Your task to perform on an android device: Look up the best rated kitchen knives on Amazon. Image 0: 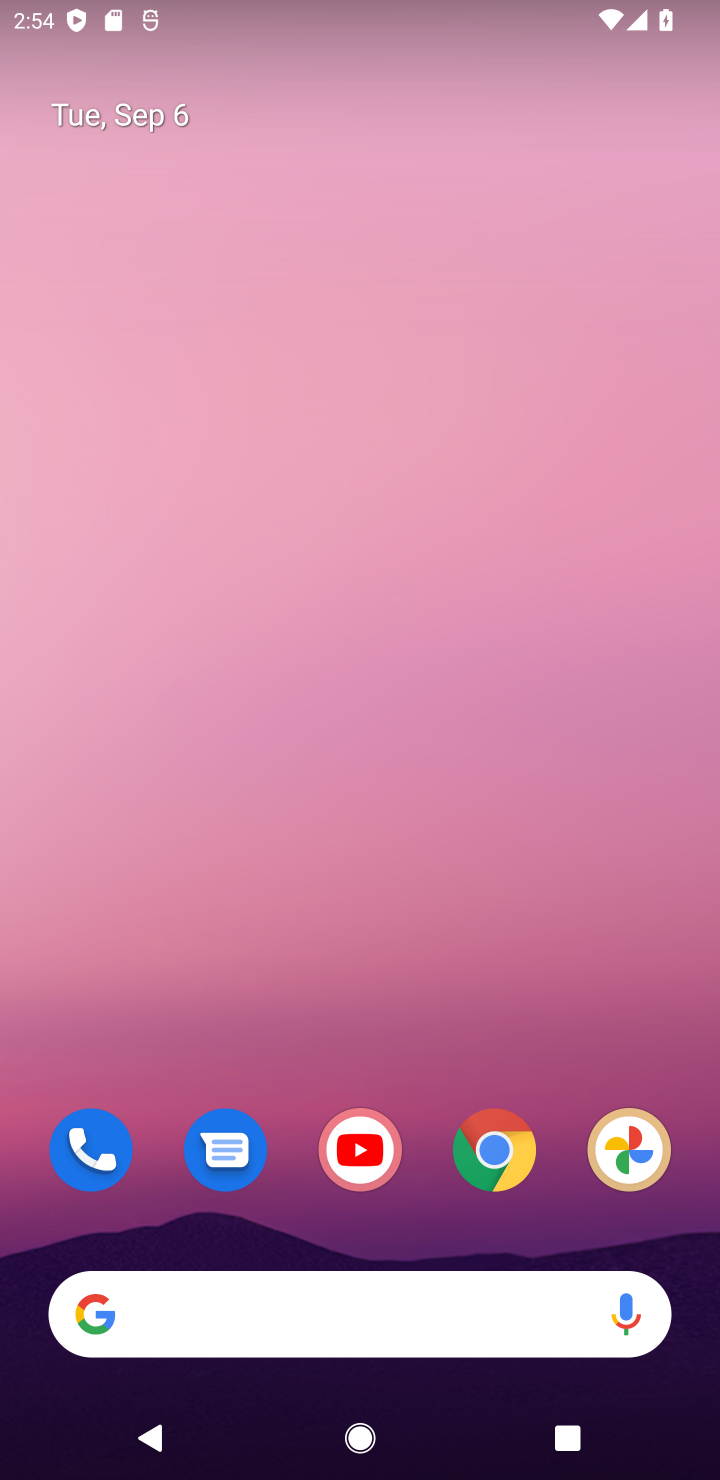
Step 0: click (498, 1153)
Your task to perform on an android device: Look up the best rated kitchen knives on Amazon. Image 1: 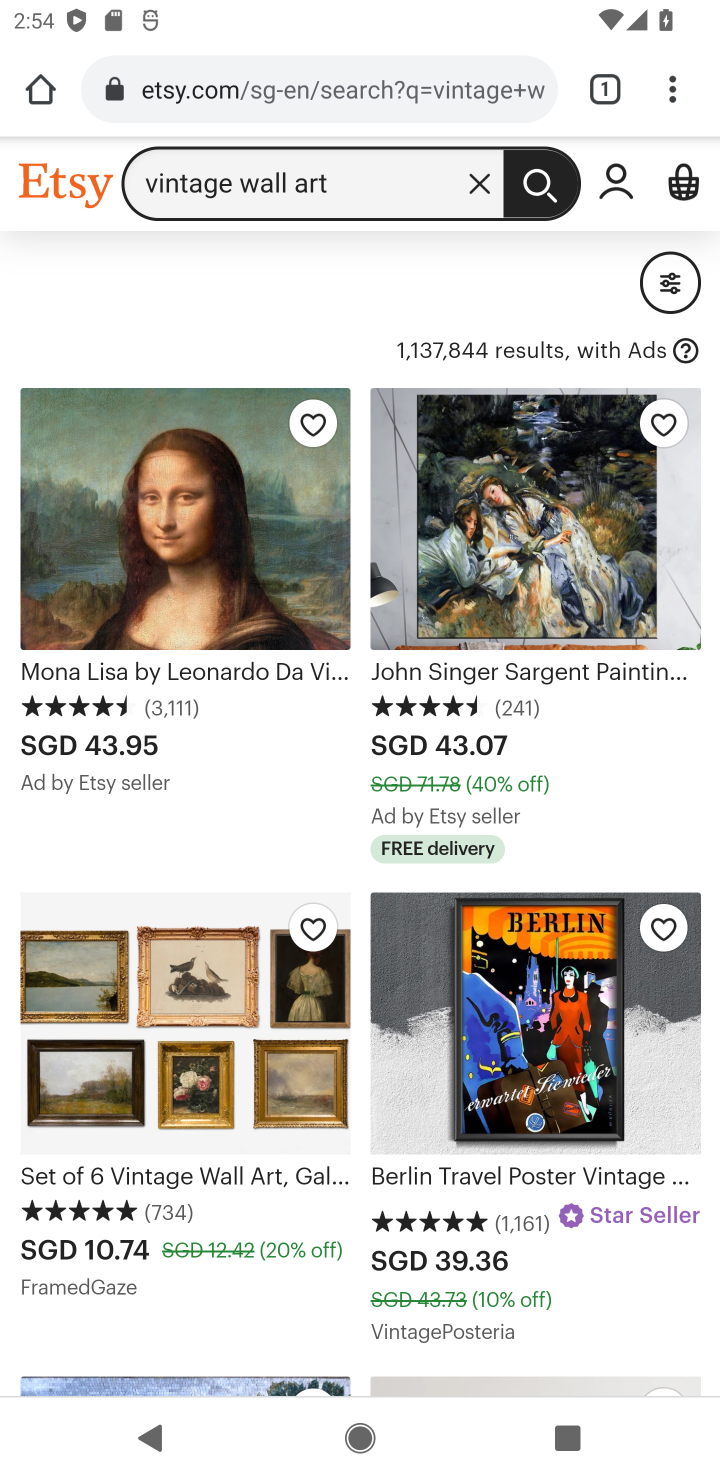
Step 1: click (345, 86)
Your task to perform on an android device: Look up the best rated kitchen knives on Amazon. Image 2: 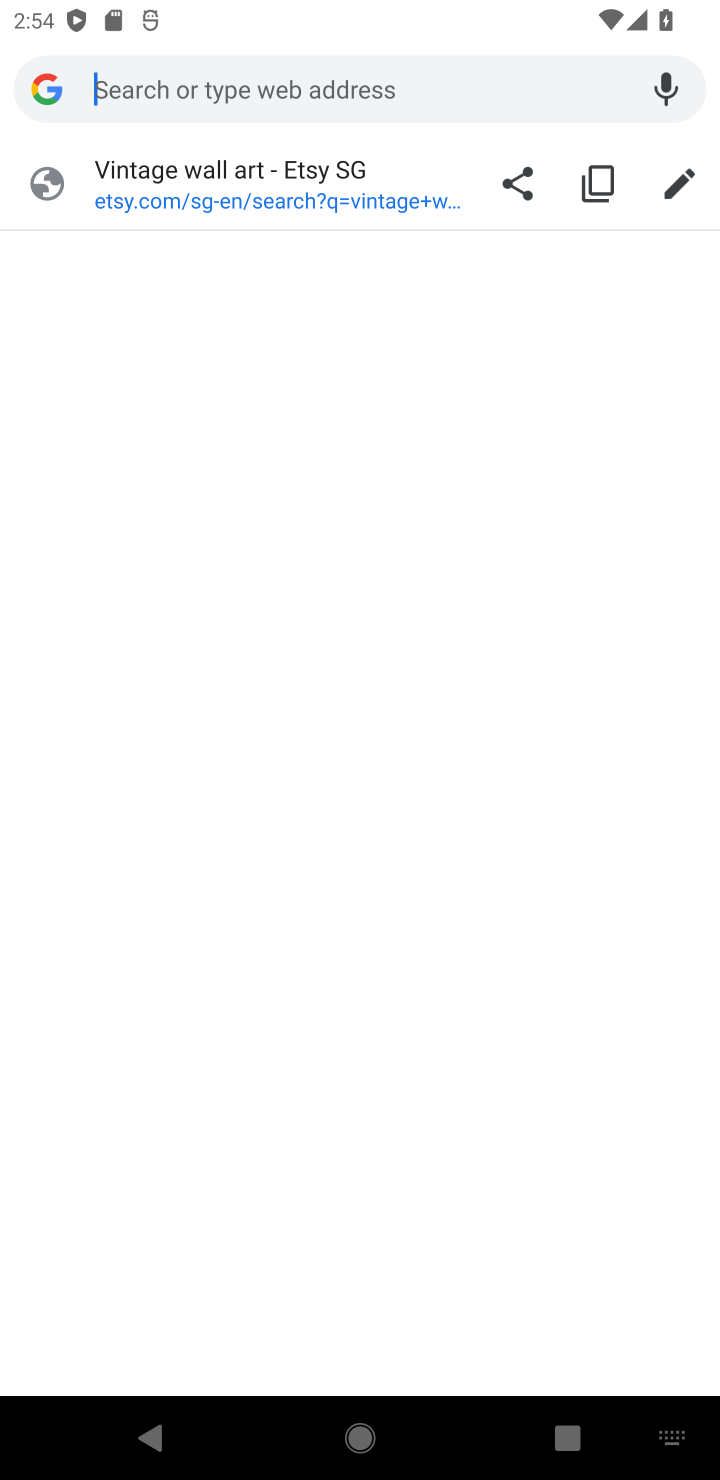
Step 2: type "amazon"
Your task to perform on an android device: Look up the best rated kitchen knives on Amazon. Image 3: 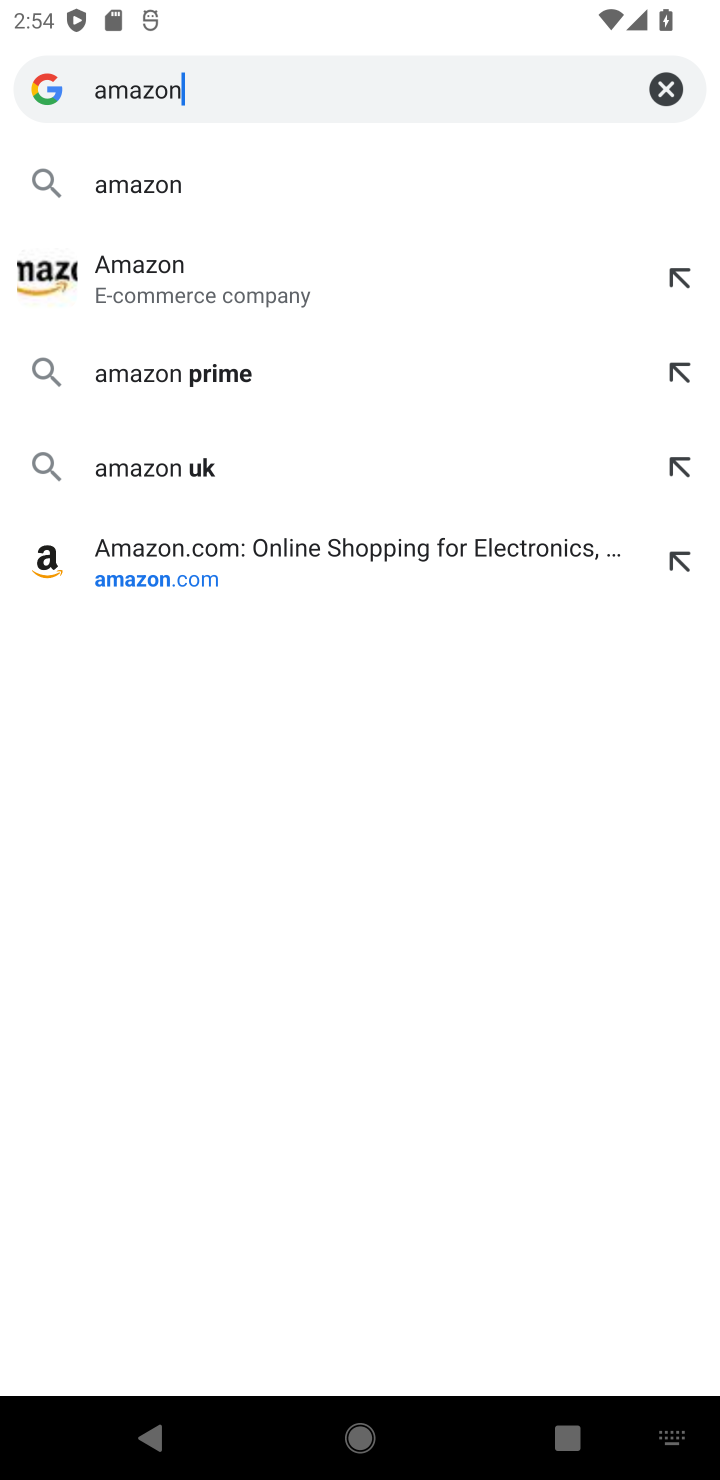
Step 3: click (128, 278)
Your task to perform on an android device: Look up the best rated kitchen knives on Amazon. Image 4: 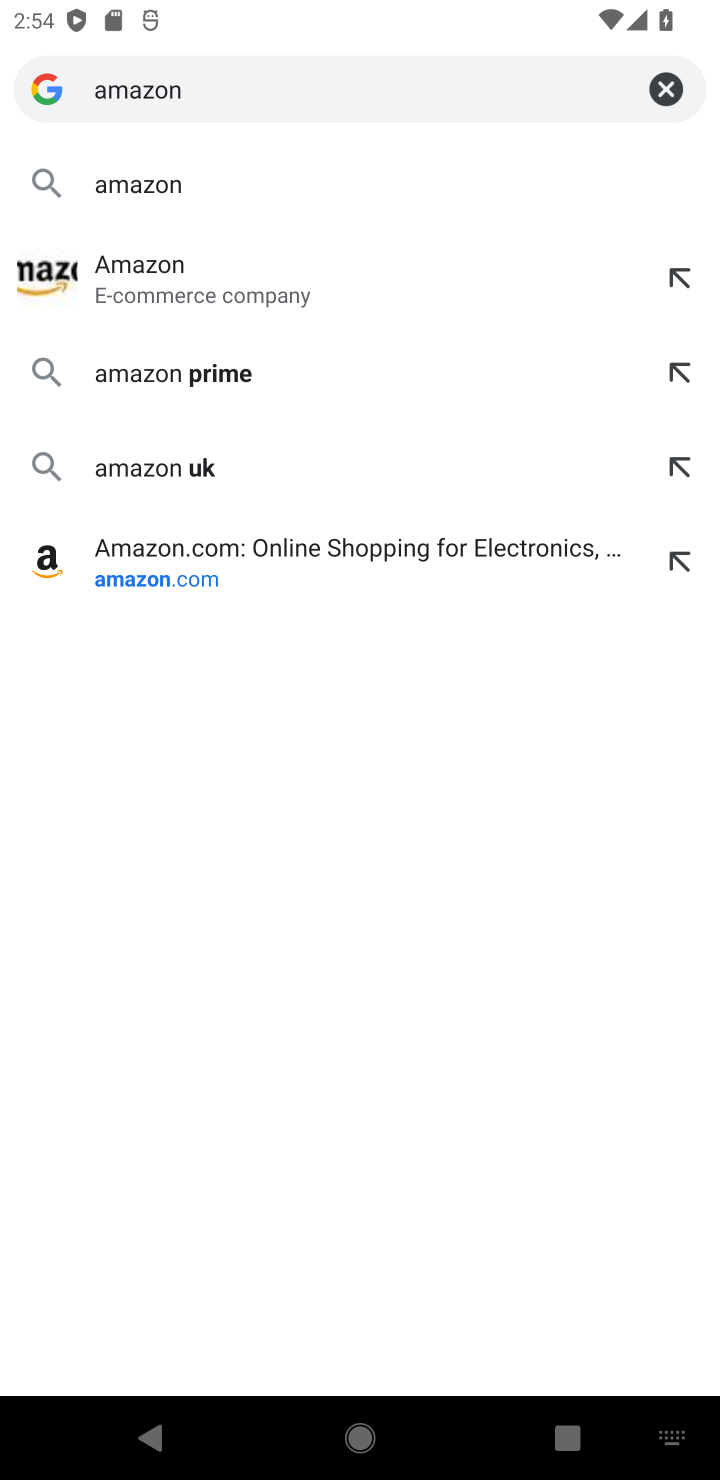
Step 4: click (164, 299)
Your task to perform on an android device: Look up the best rated kitchen knives on Amazon. Image 5: 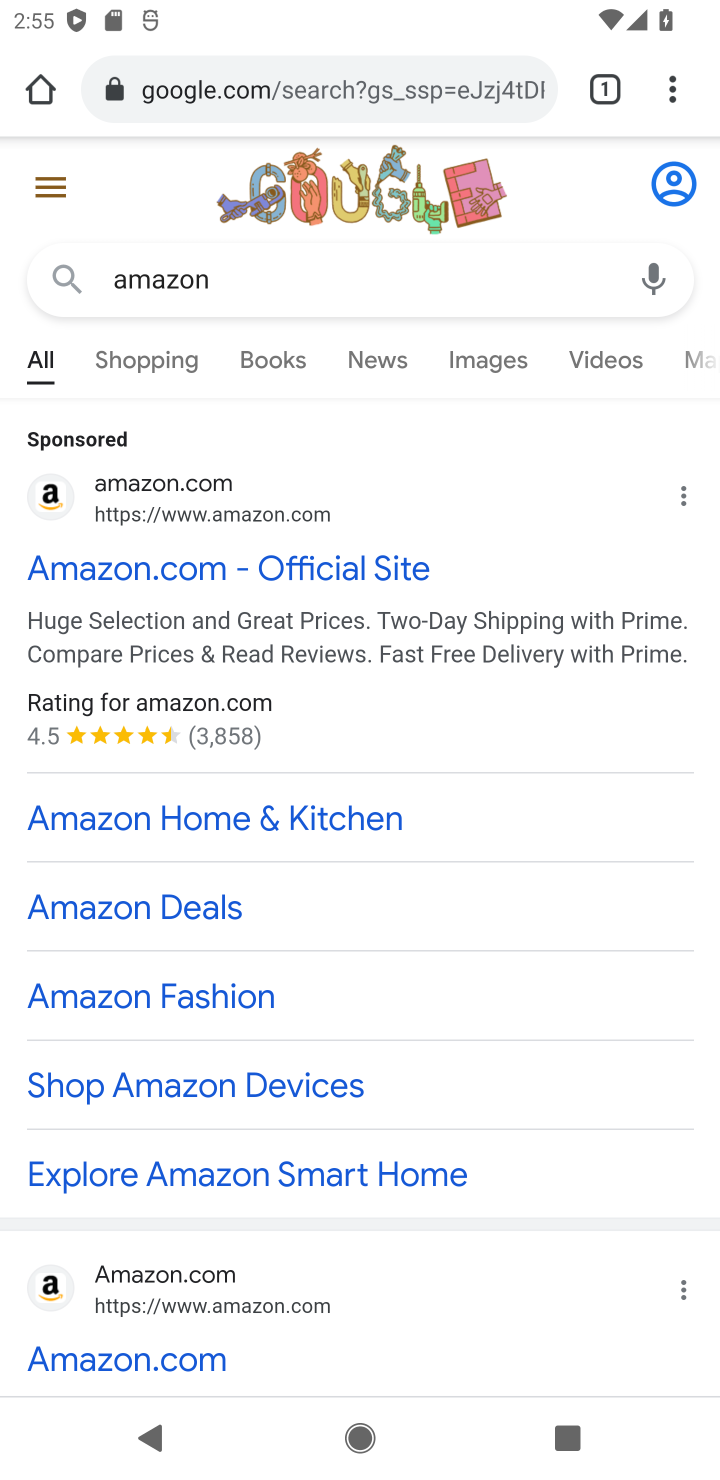
Step 5: click (127, 570)
Your task to perform on an android device: Look up the best rated kitchen knives on Amazon. Image 6: 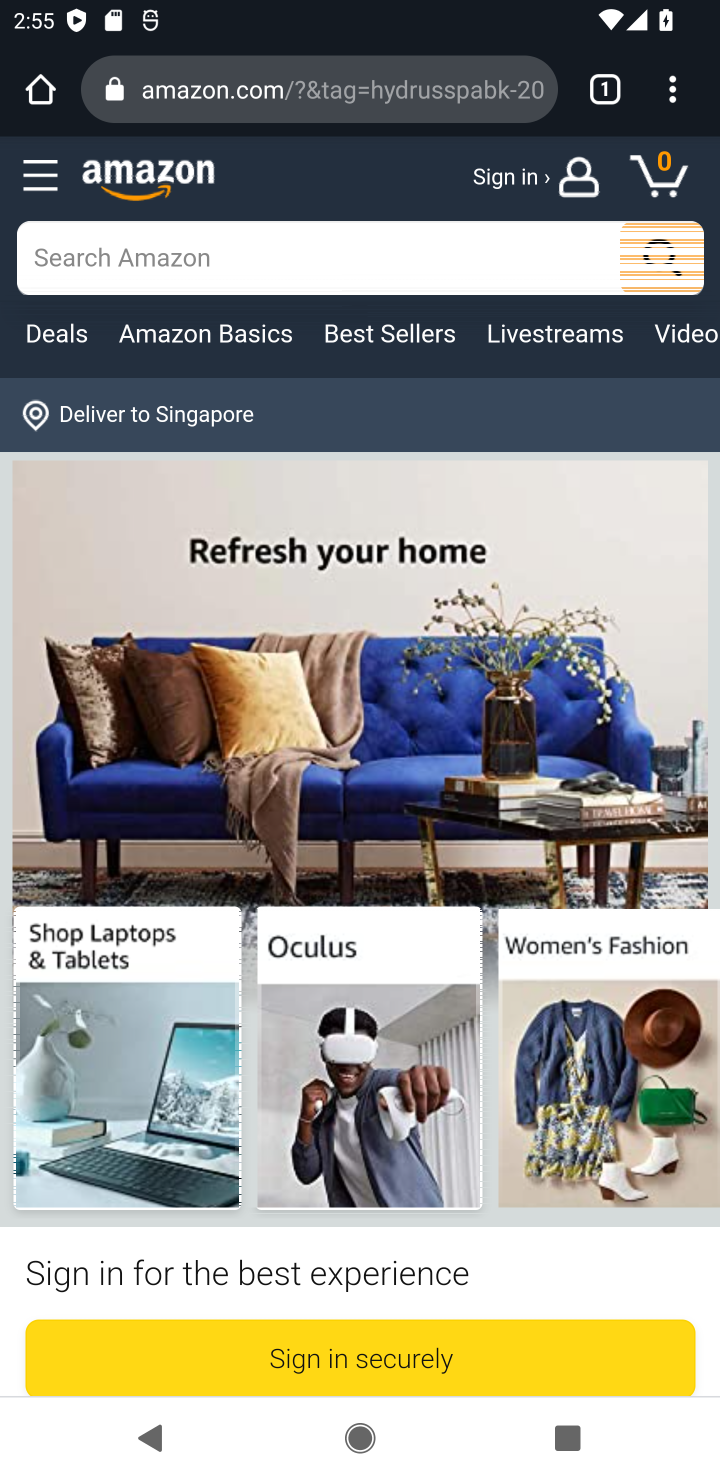
Step 6: click (172, 281)
Your task to perform on an android device: Look up the best rated kitchen knives on Amazon. Image 7: 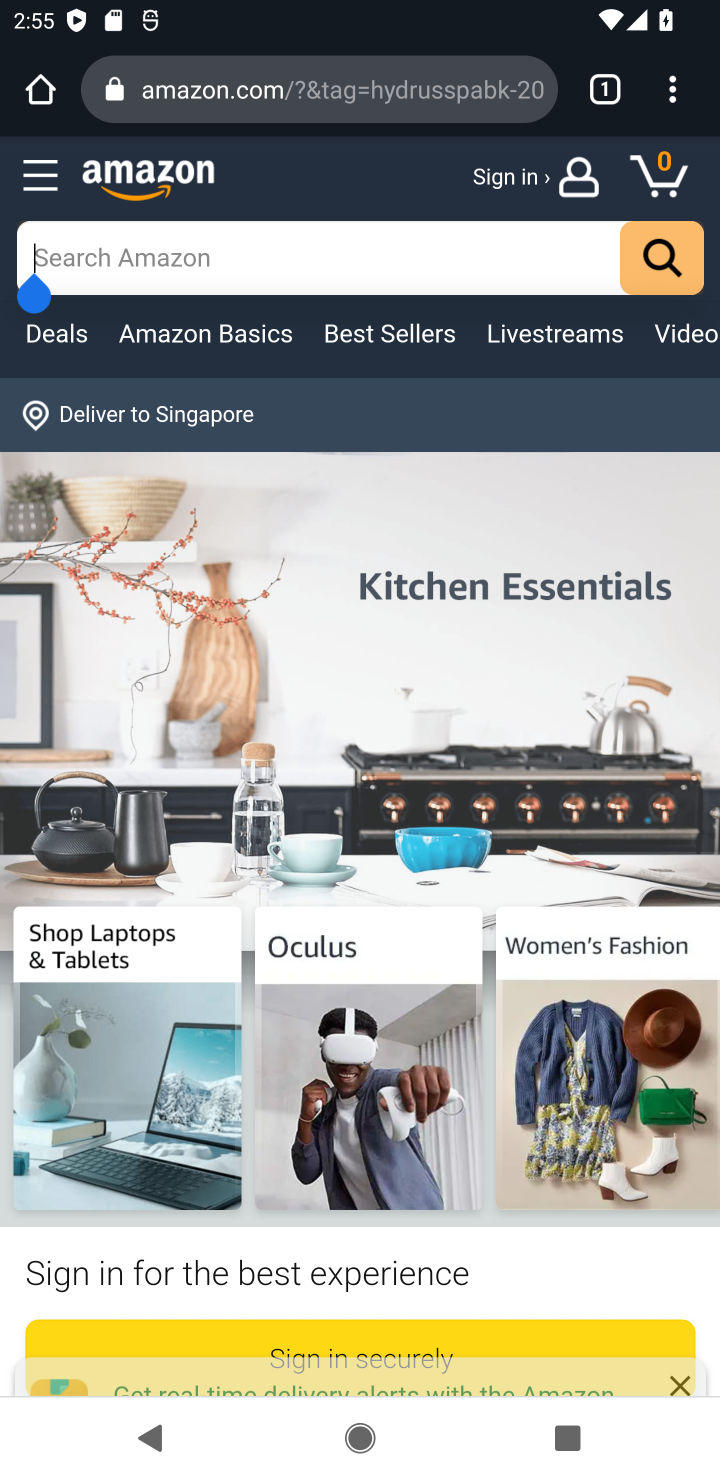
Step 7: type "best rated kitchen knives"
Your task to perform on an android device: Look up the best rated kitchen knives on Amazon. Image 8: 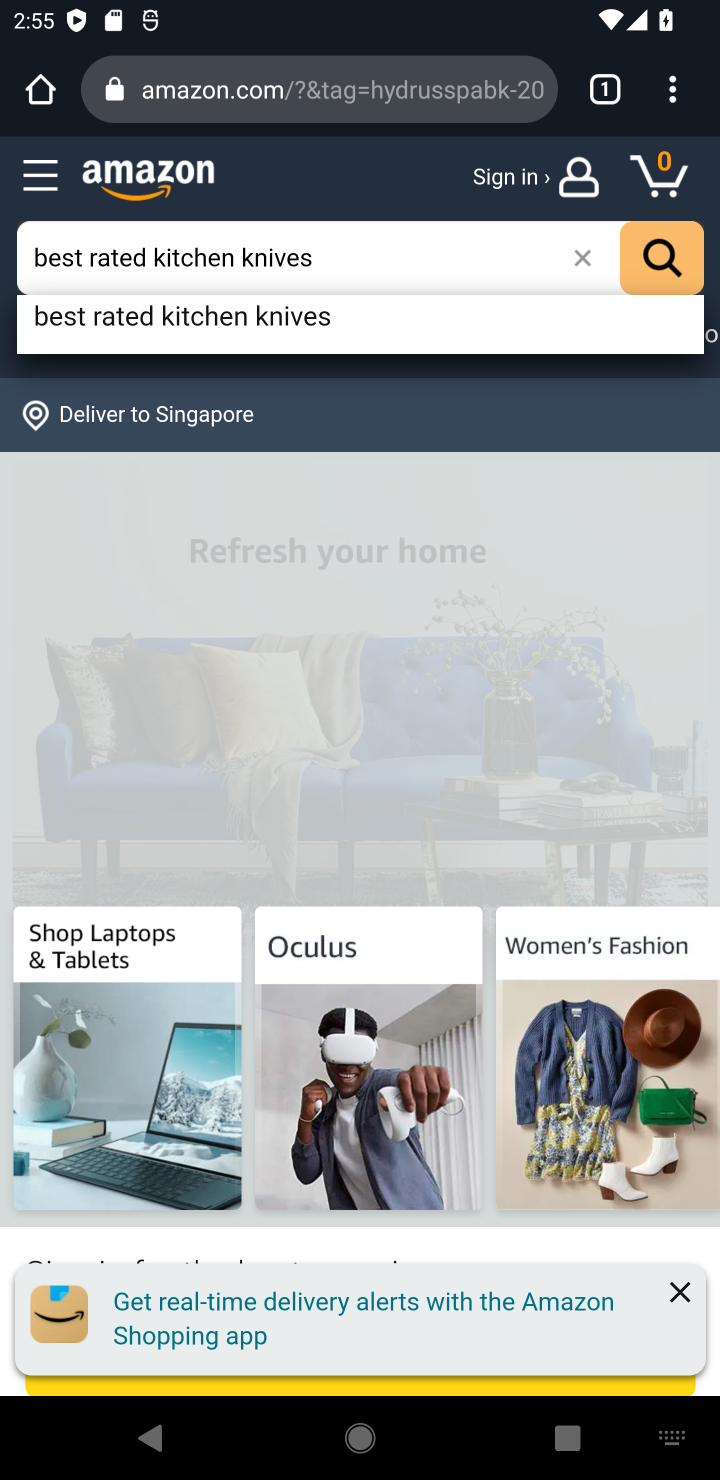
Step 8: click (257, 323)
Your task to perform on an android device: Look up the best rated kitchen knives on Amazon. Image 9: 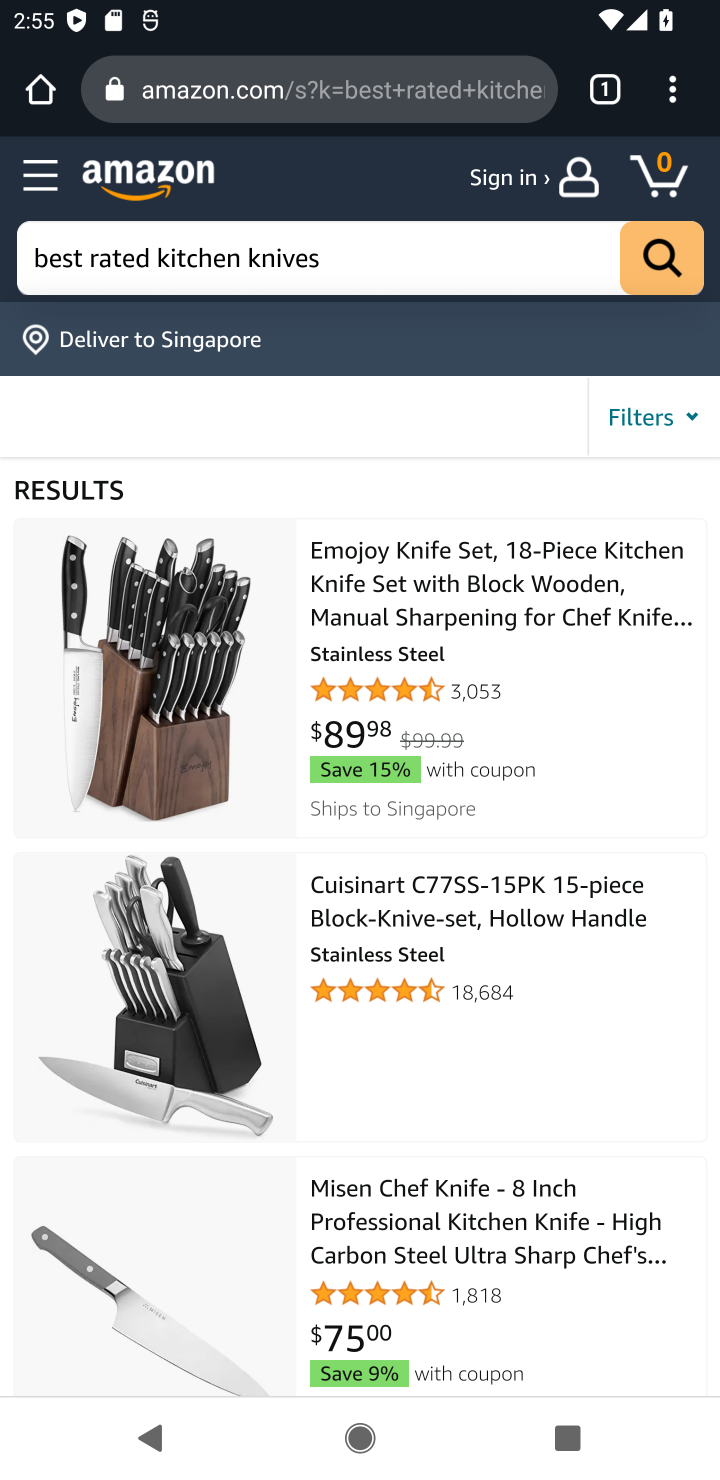
Step 9: task complete